Your task to perform on an android device: What is the recent news? Image 0: 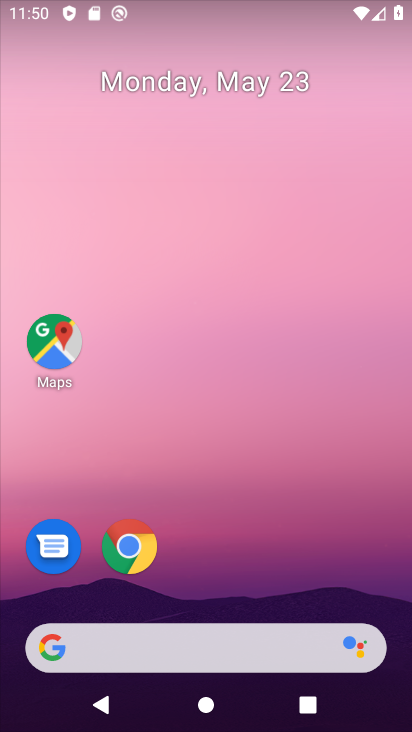
Step 0: drag from (275, 641) to (252, 237)
Your task to perform on an android device: What is the recent news? Image 1: 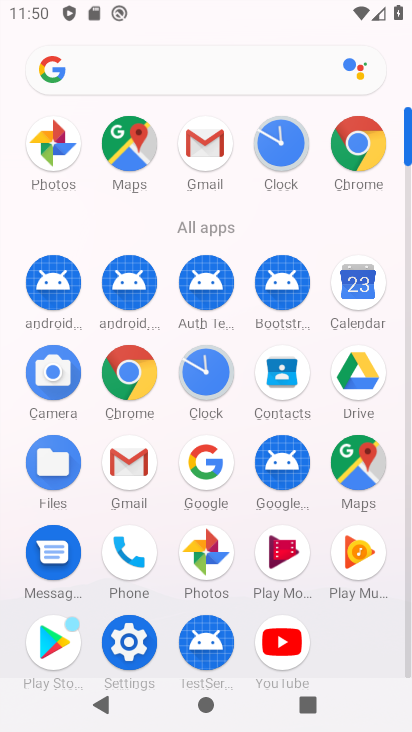
Step 1: click (123, 374)
Your task to perform on an android device: What is the recent news? Image 2: 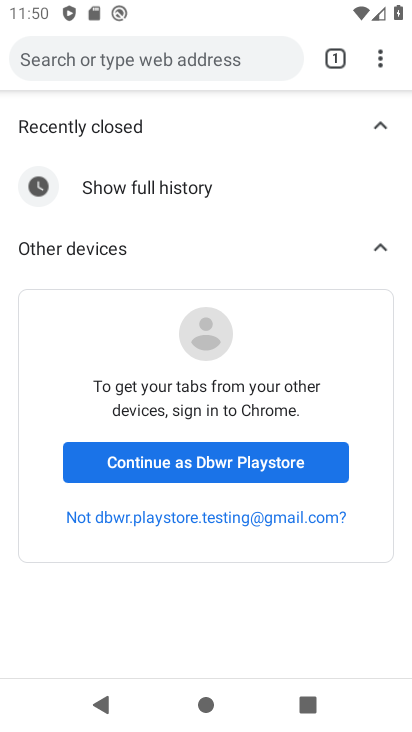
Step 2: click (226, 68)
Your task to perform on an android device: What is the recent news? Image 3: 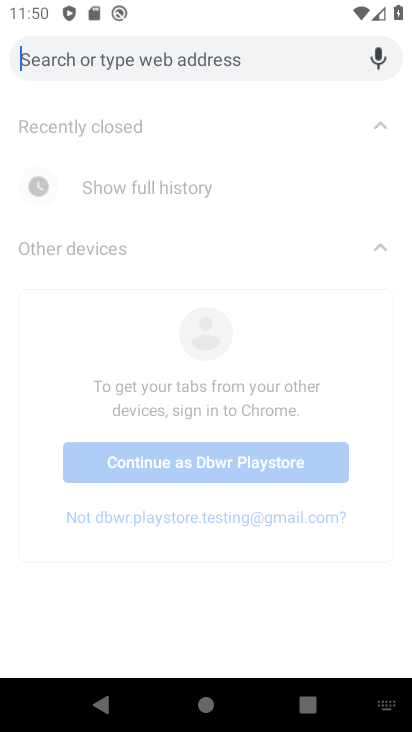
Step 3: type "recent news"
Your task to perform on an android device: What is the recent news? Image 4: 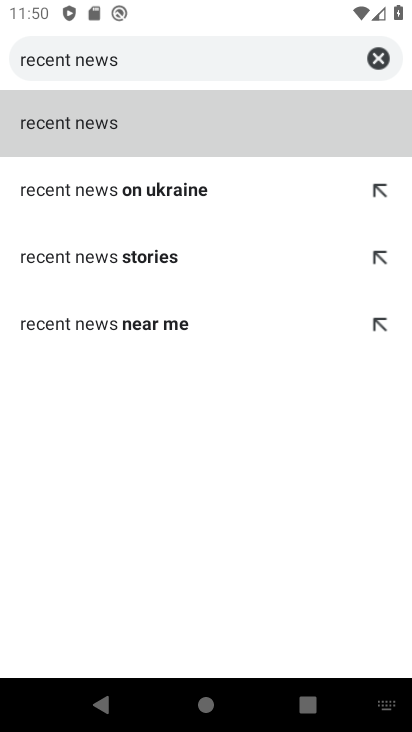
Step 4: click (94, 135)
Your task to perform on an android device: What is the recent news? Image 5: 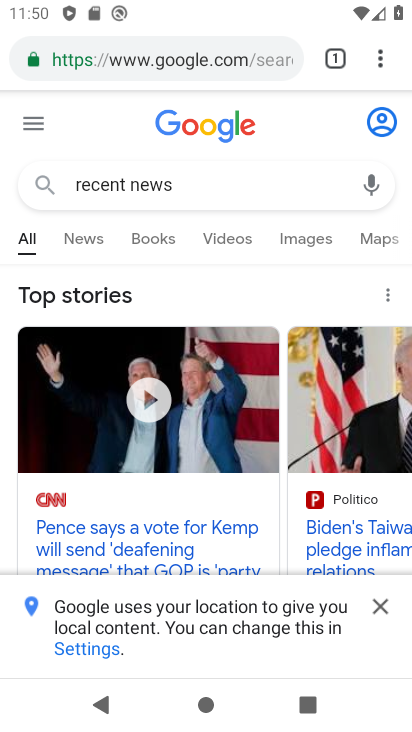
Step 5: task complete